Your task to perform on an android device: all mails in gmail Image 0: 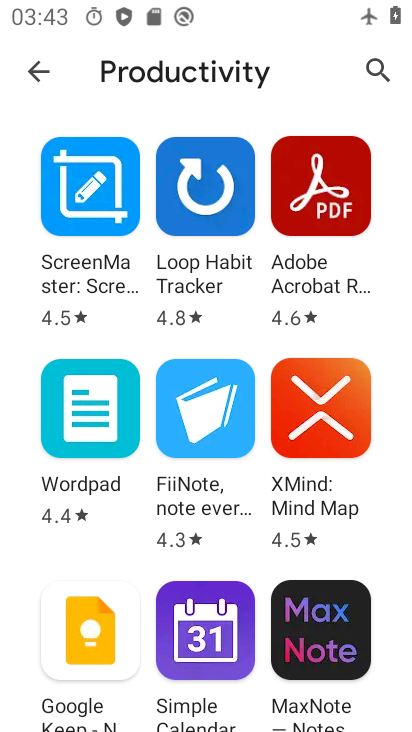
Step 0: press home button
Your task to perform on an android device: all mails in gmail Image 1: 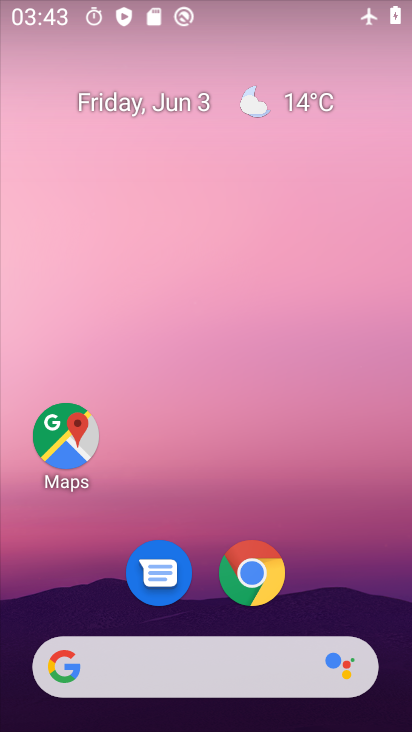
Step 1: drag from (264, 672) to (334, 6)
Your task to perform on an android device: all mails in gmail Image 2: 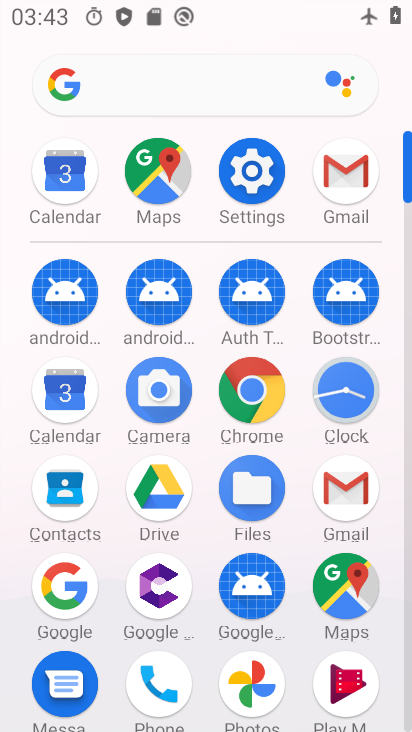
Step 2: click (348, 469)
Your task to perform on an android device: all mails in gmail Image 3: 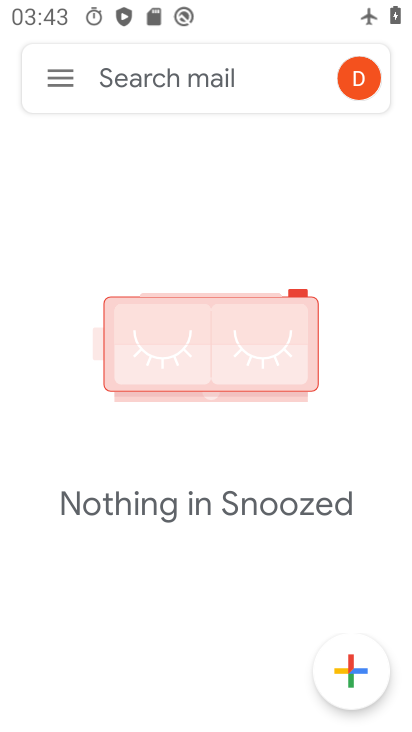
Step 3: click (50, 77)
Your task to perform on an android device: all mails in gmail Image 4: 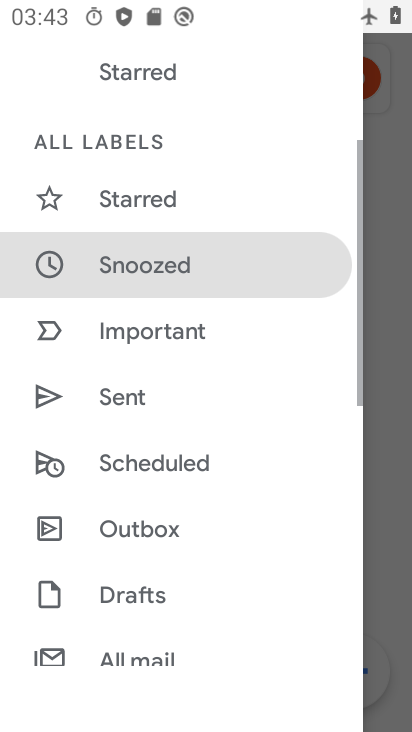
Step 4: drag from (190, 522) to (250, 51)
Your task to perform on an android device: all mails in gmail Image 5: 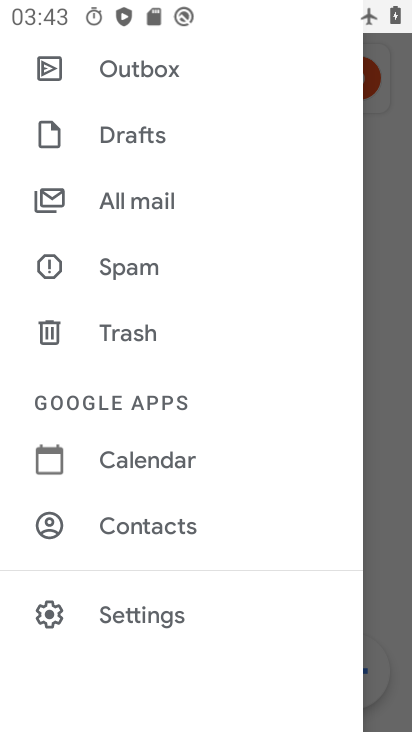
Step 5: click (155, 213)
Your task to perform on an android device: all mails in gmail Image 6: 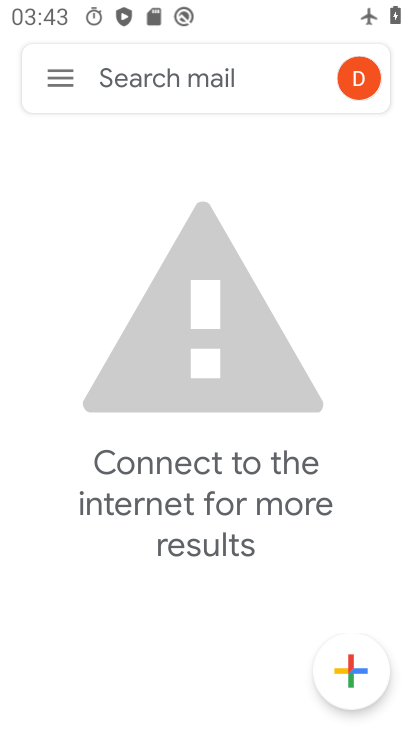
Step 6: task complete